Your task to perform on an android device: see creations saved in the google photos Image 0: 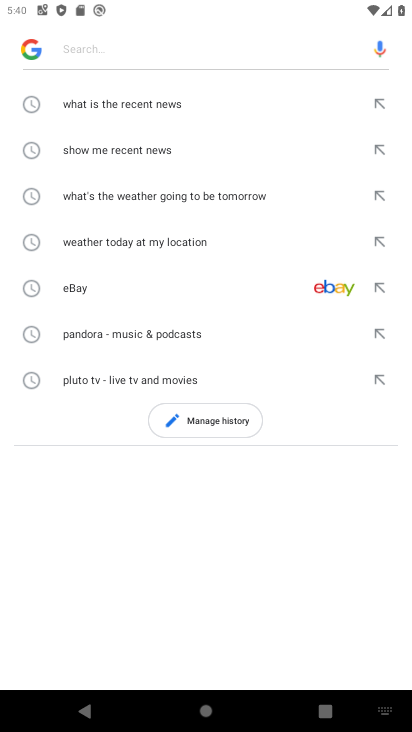
Step 0: press back button
Your task to perform on an android device: see creations saved in the google photos Image 1: 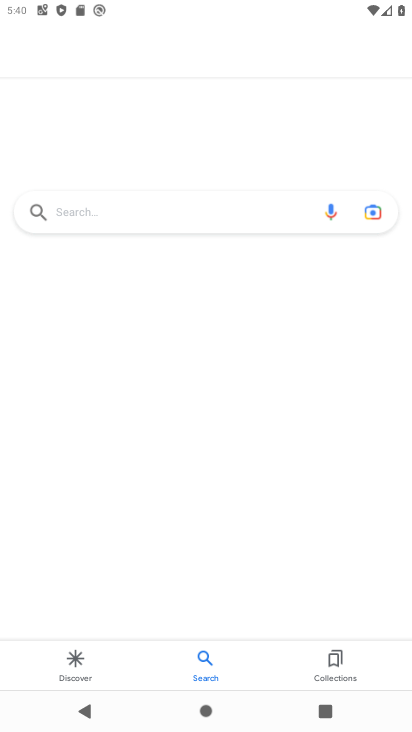
Step 1: press back button
Your task to perform on an android device: see creations saved in the google photos Image 2: 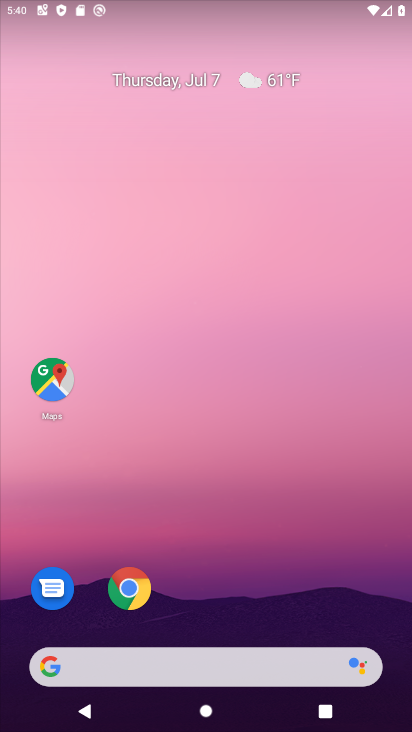
Step 2: drag from (183, 586) to (228, 12)
Your task to perform on an android device: see creations saved in the google photos Image 3: 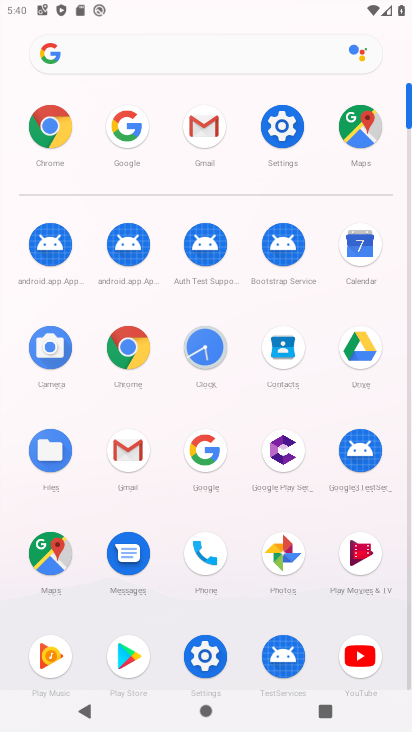
Step 3: click (284, 549)
Your task to perform on an android device: see creations saved in the google photos Image 4: 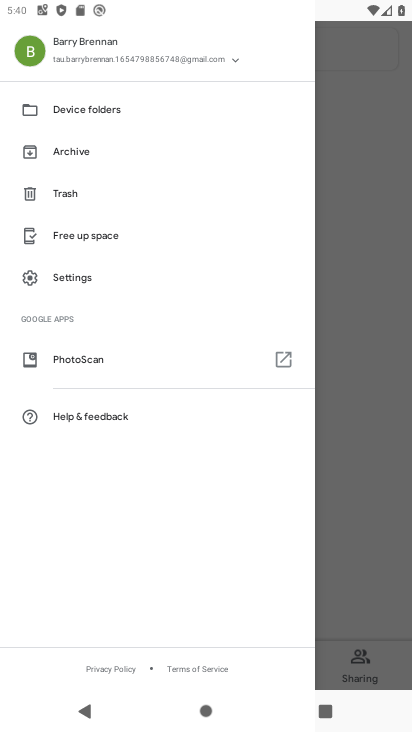
Step 4: click (109, 149)
Your task to perform on an android device: see creations saved in the google photos Image 5: 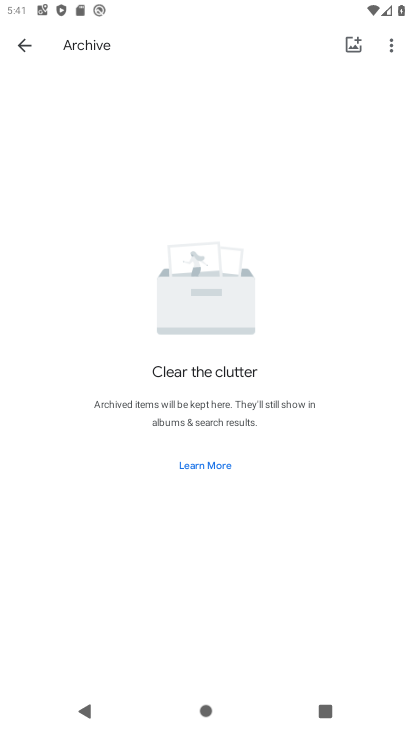
Step 5: task complete